Your task to perform on an android device: Open Google Chrome and open the bookmarks view Image 0: 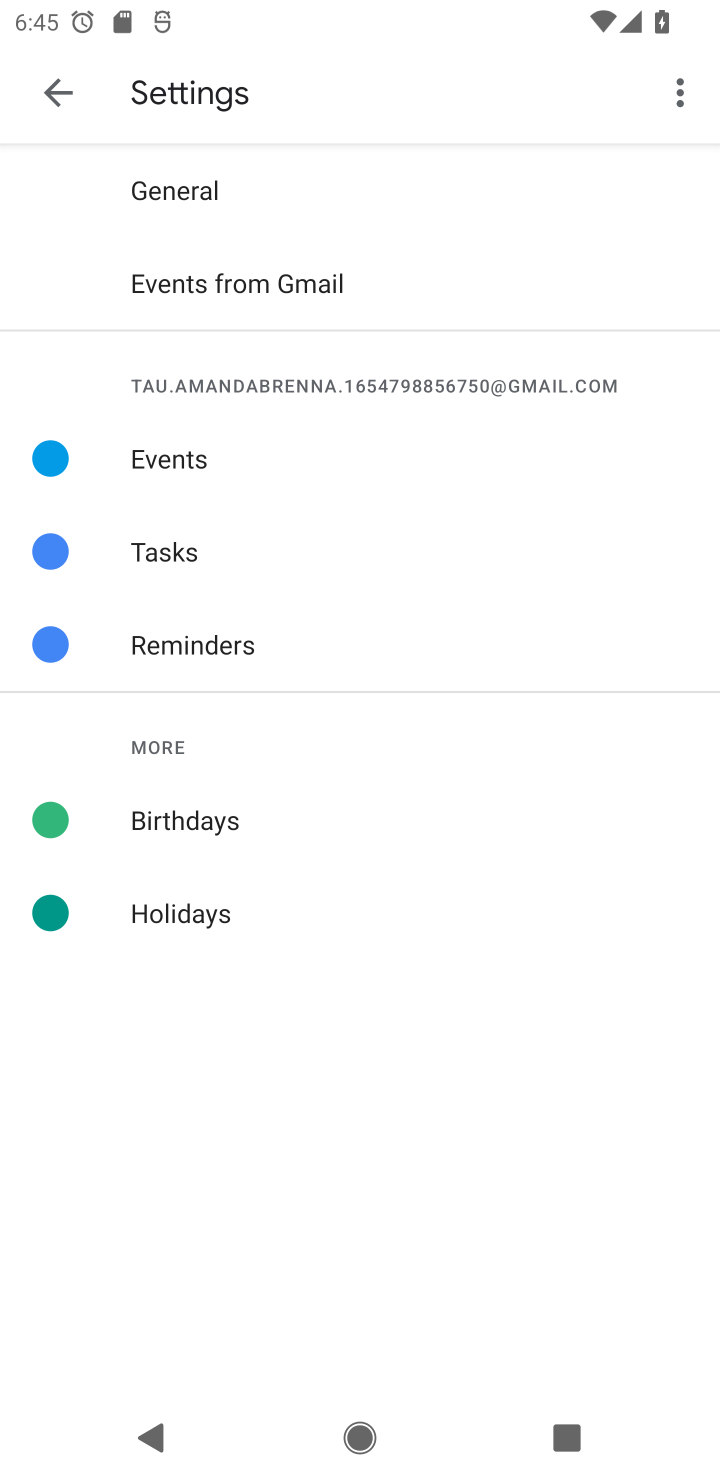
Step 0: task complete